Your task to perform on an android device: Turn off the flashlight Image 0: 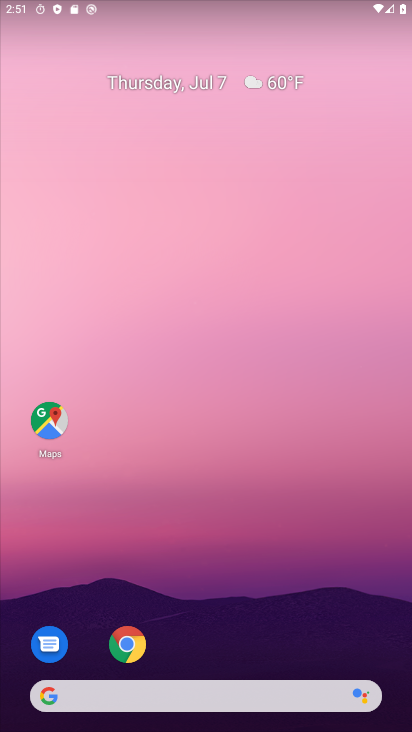
Step 0: press home button
Your task to perform on an android device: Turn off the flashlight Image 1: 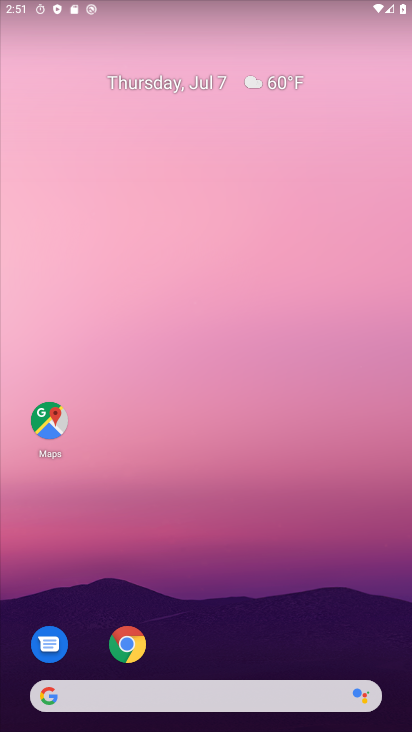
Step 1: drag from (219, 658) to (223, 126)
Your task to perform on an android device: Turn off the flashlight Image 2: 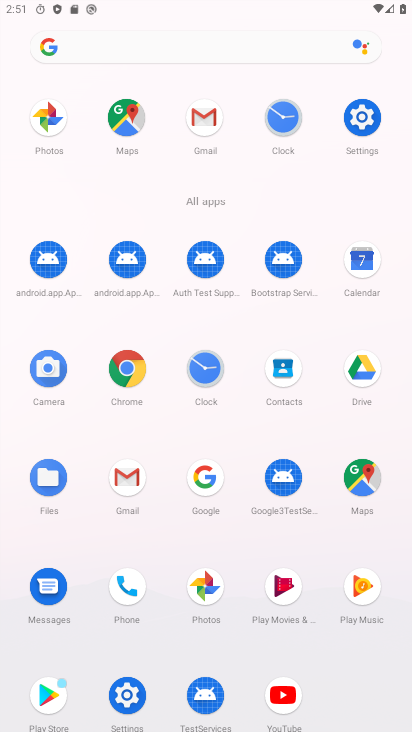
Step 2: click (362, 119)
Your task to perform on an android device: Turn off the flashlight Image 3: 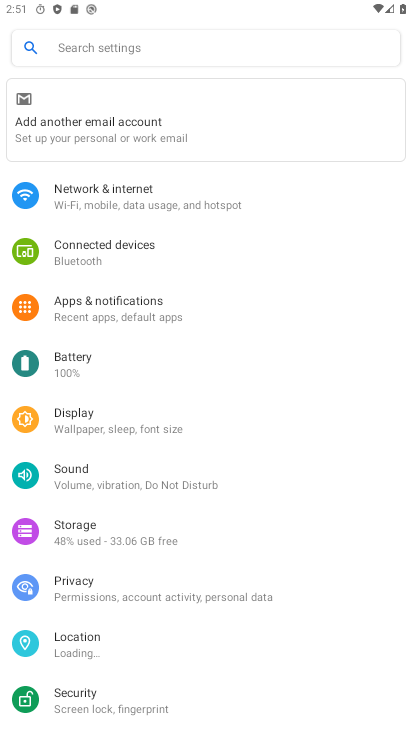
Step 3: click (101, 40)
Your task to perform on an android device: Turn off the flashlight Image 4: 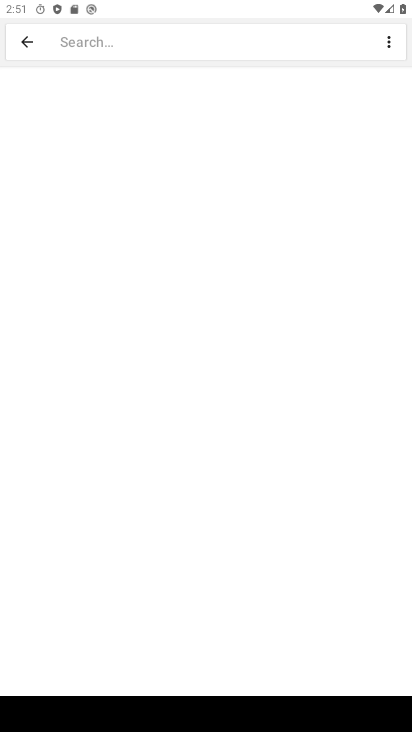
Step 4: type "Flashlight"
Your task to perform on an android device: Turn off the flashlight Image 5: 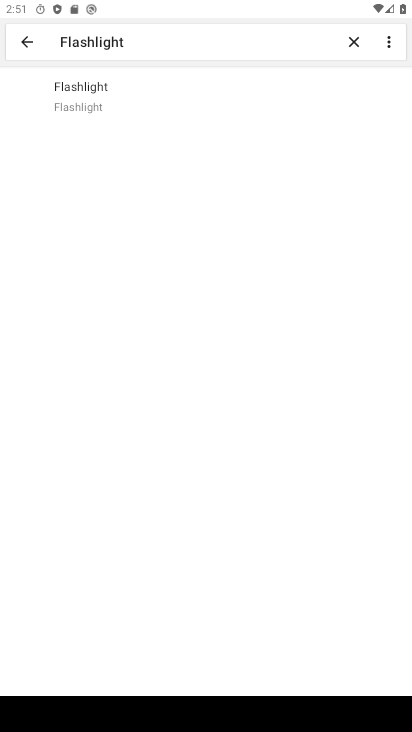
Step 5: click (96, 91)
Your task to perform on an android device: Turn off the flashlight Image 6: 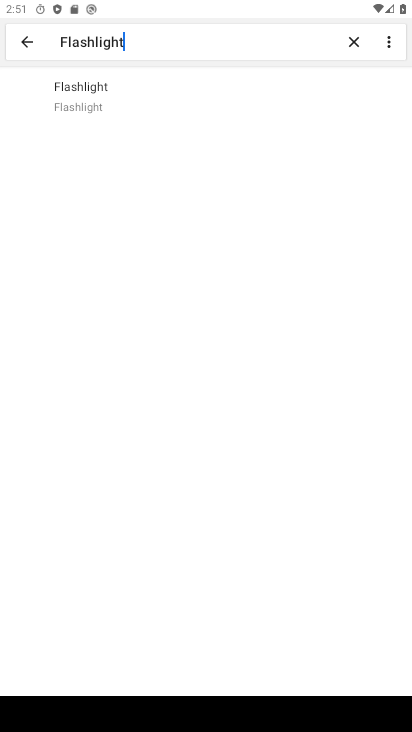
Step 6: click (100, 99)
Your task to perform on an android device: Turn off the flashlight Image 7: 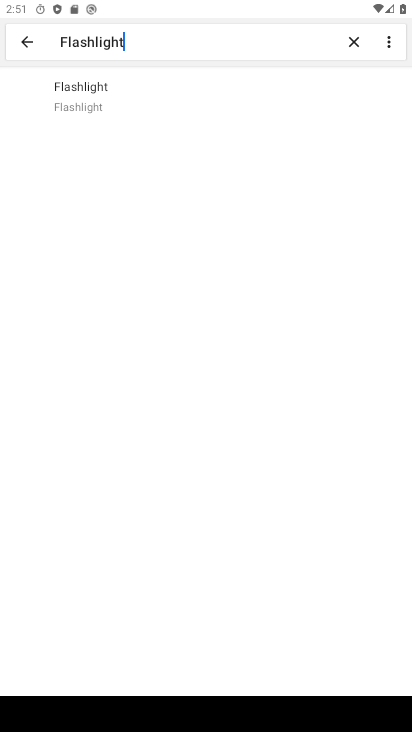
Step 7: task complete